Your task to perform on an android device: Go to calendar. Show me events next week Image 0: 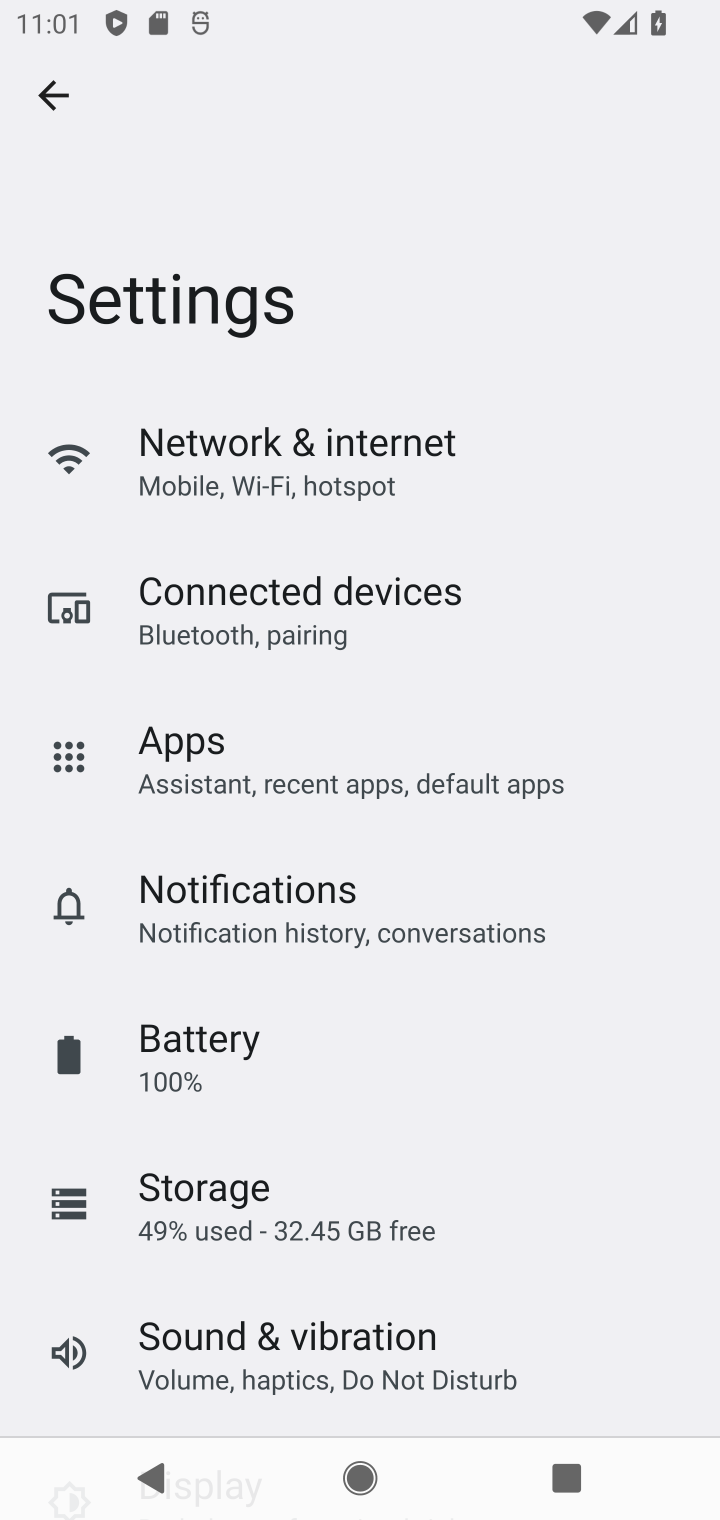
Step 0: press home button
Your task to perform on an android device: Go to calendar. Show me events next week Image 1: 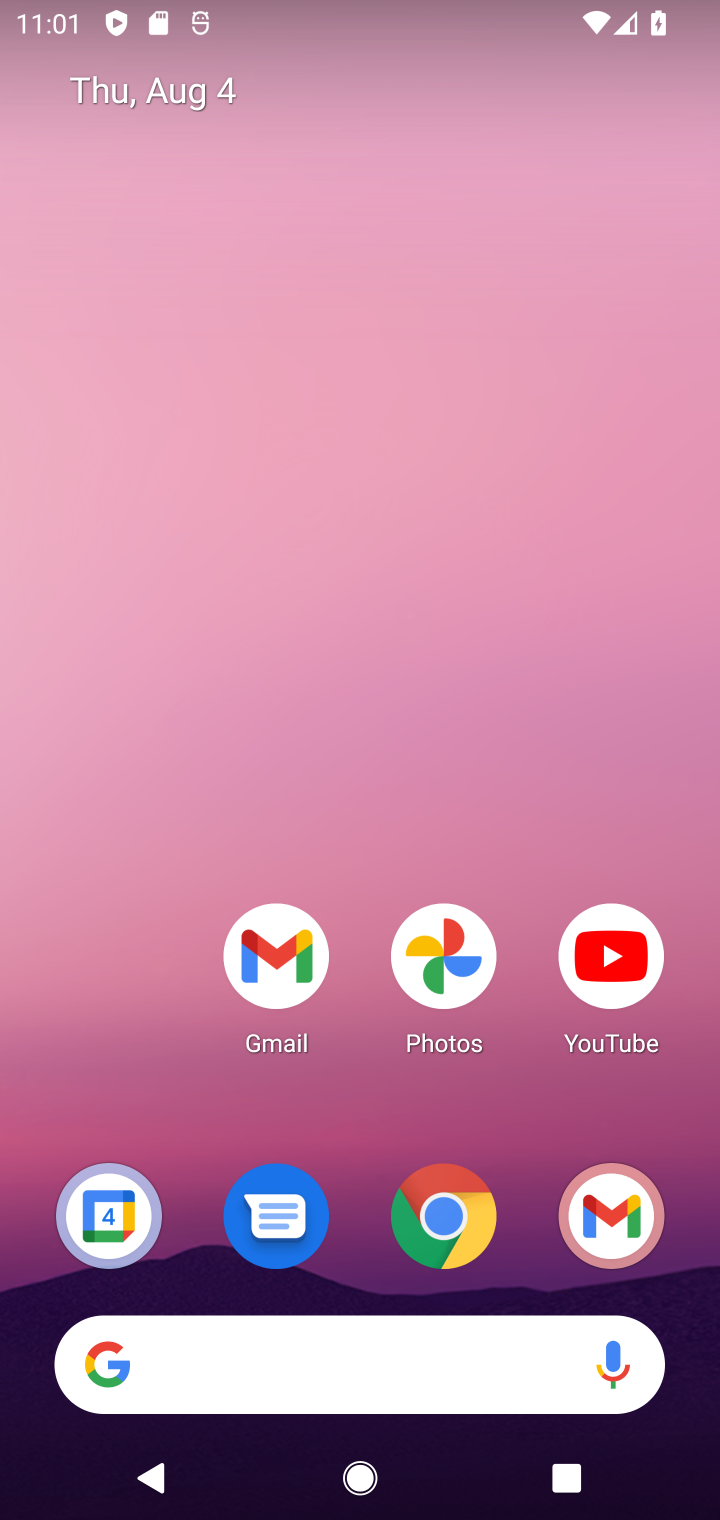
Step 1: click (108, 1221)
Your task to perform on an android device: Go to calendar. Show me events next week Image 2: 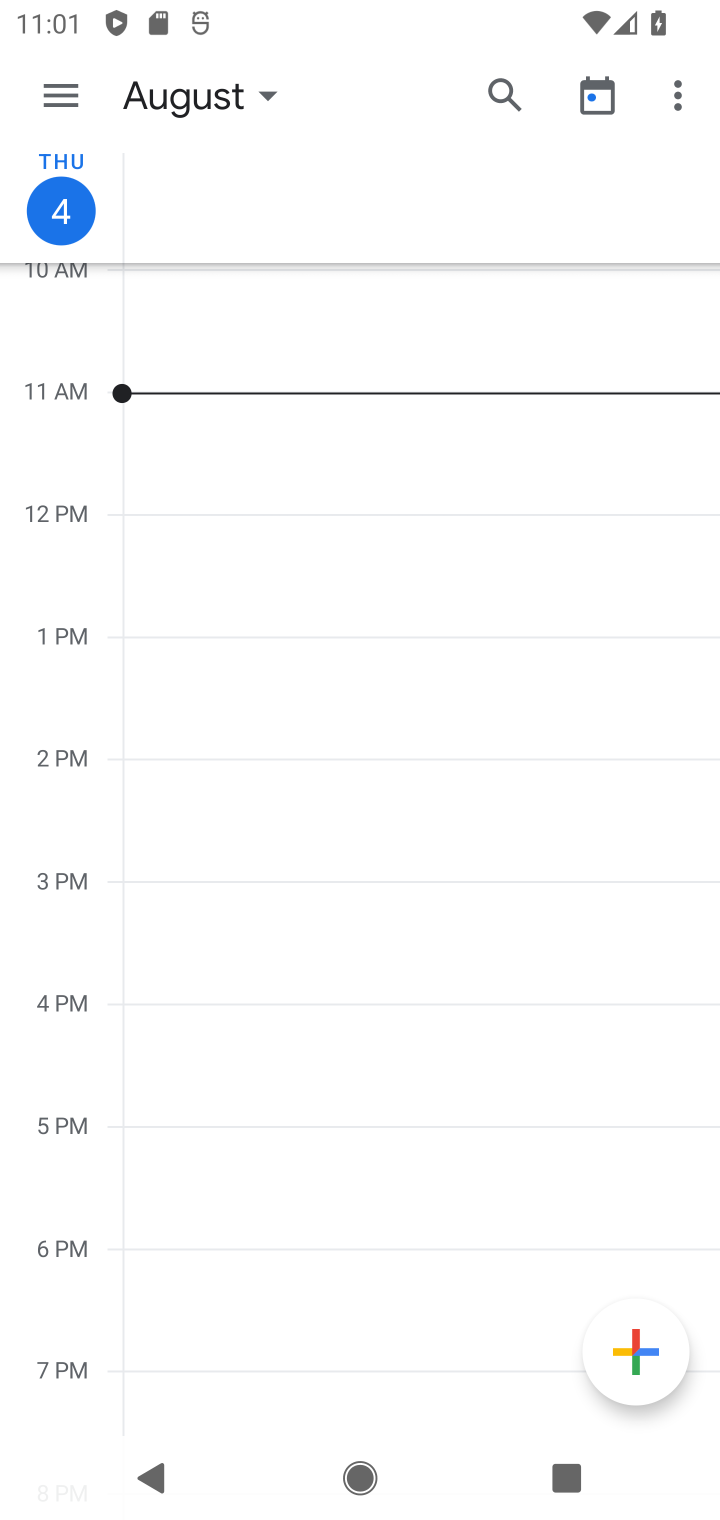
Step 2: click (55, 89)
Your task to perform on an android device: Go to calendar. Show me events next week Image 3: 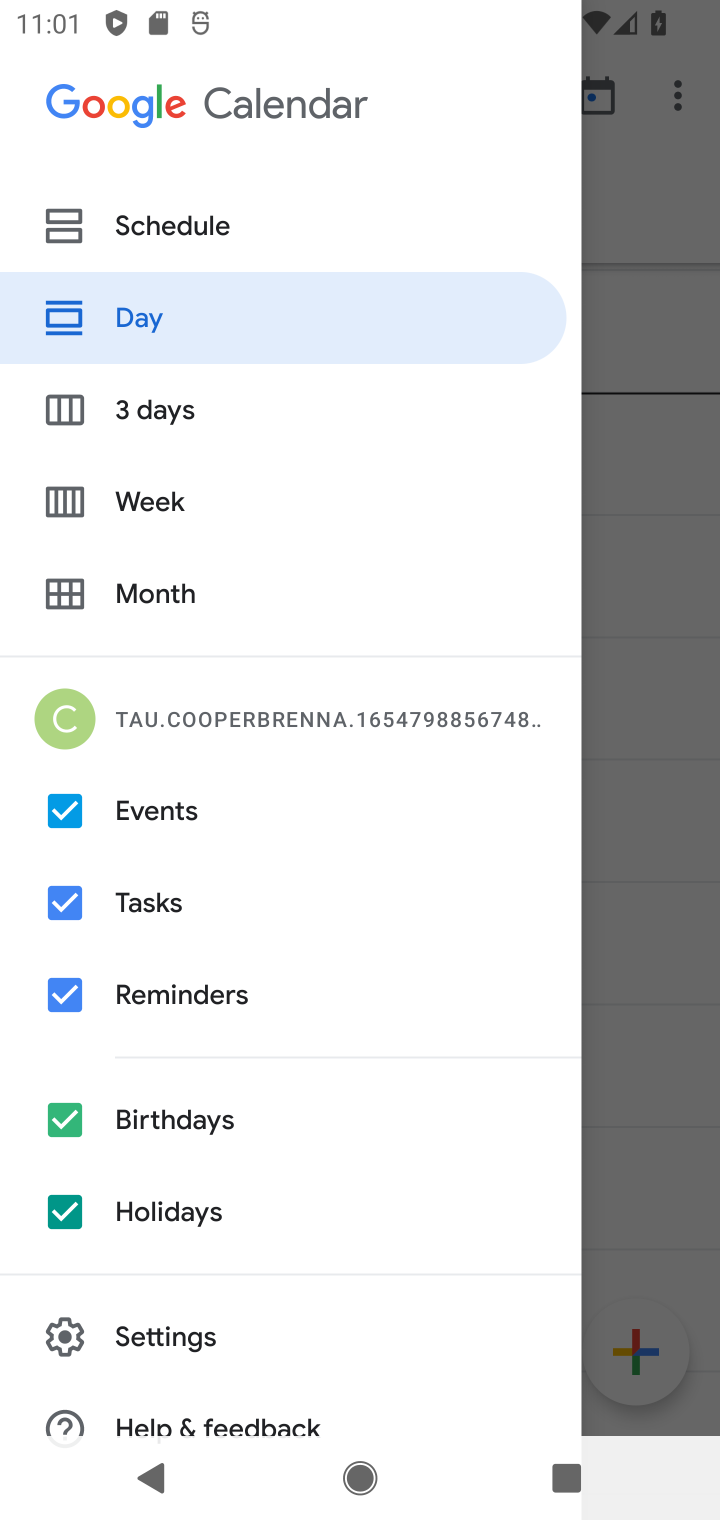
Step 3: click (69, 499)
Your task to perform on an android device: Go to calendar. Show me events next week Image 4: 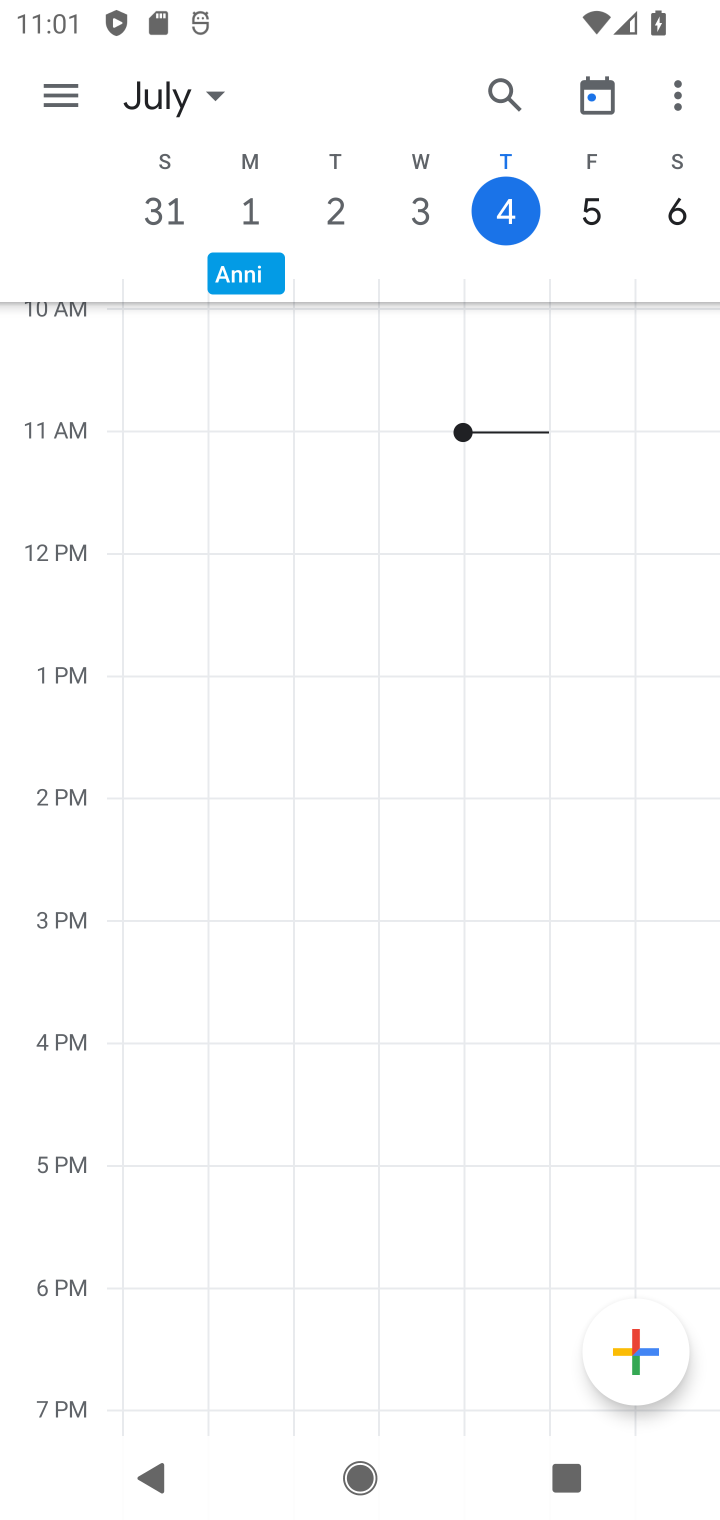
Step 4: task complete